Your task to perform on an android device: star an email in the gmail app Image 0: 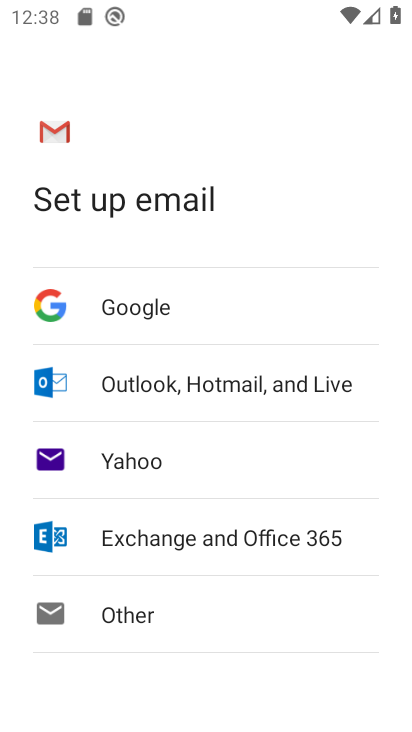
Step 0: press back button
Your task to perform on an android device: star an email in the gmail app Image 1: 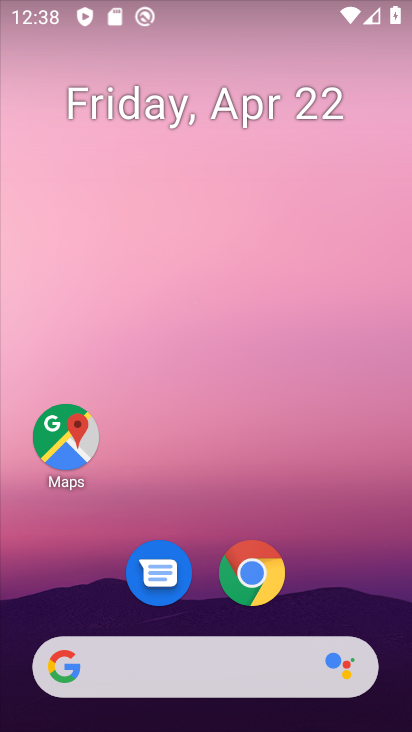
Step 1: drag from (228, 343) to (268, 154)
Your task to perform on an android device: star an email in the gmail app Image 2: 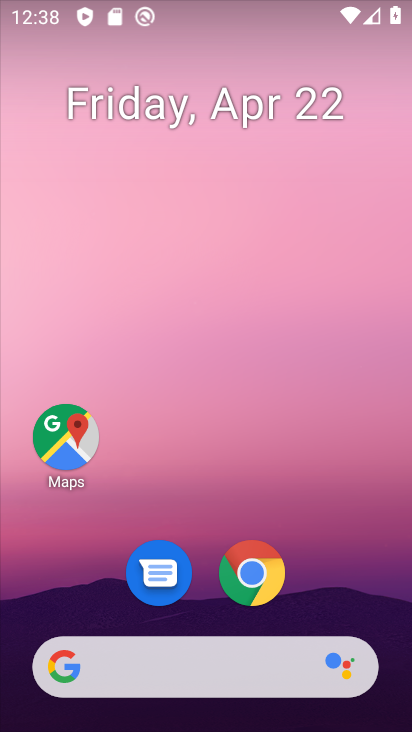
Step 2: drag from (219, 490) to (303, 102)
Your task to perform on an android device: star an email in the gmail app Image 3: 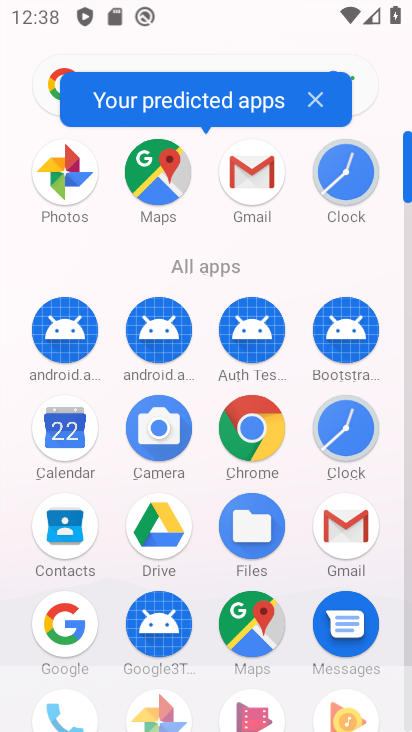
Step 3: click (360, 541)
Your task to perform on an android device: star an email in the gmail app Image 4: 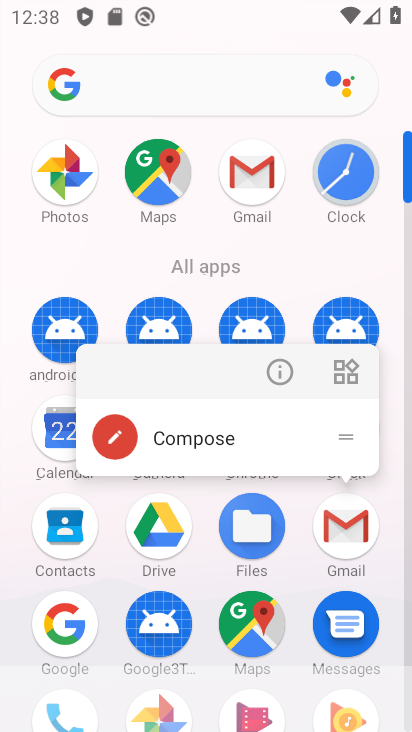
Step 4: click (358, 551)
Your task to perform on an android device: star an email in the gmail app Image 5: 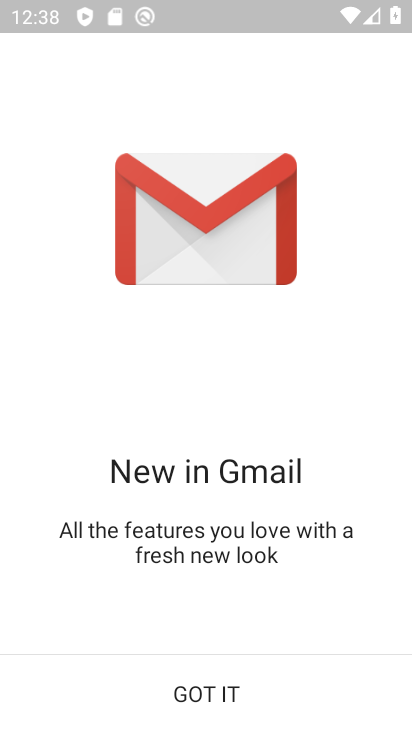
Step 5: click (253, 697)
Your task to perform on an android device: star an email in the gmail app Image 6: 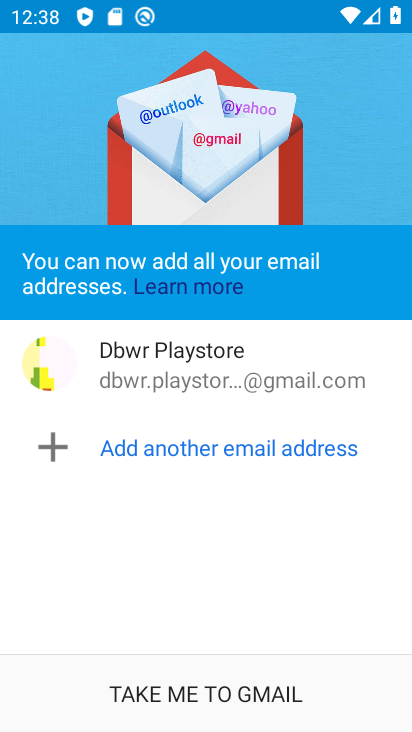
Step 6: click (242, 709)
Your task to perform on an android device: star an email in the gmail app Image 7: 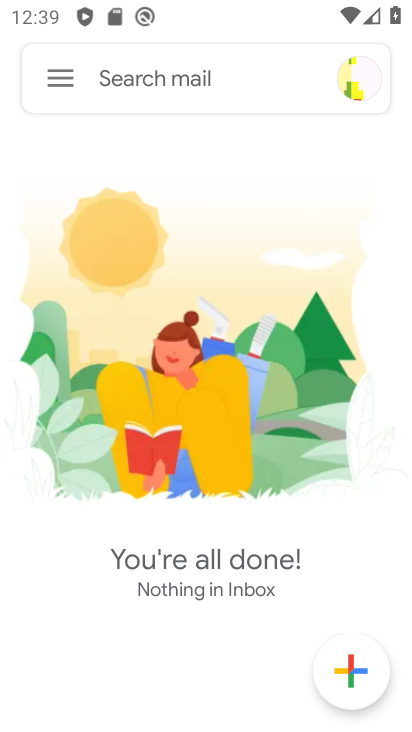
Step 7: click (63, 82)
Your task to perform on an android device: star an email in the gmail app Image 8: 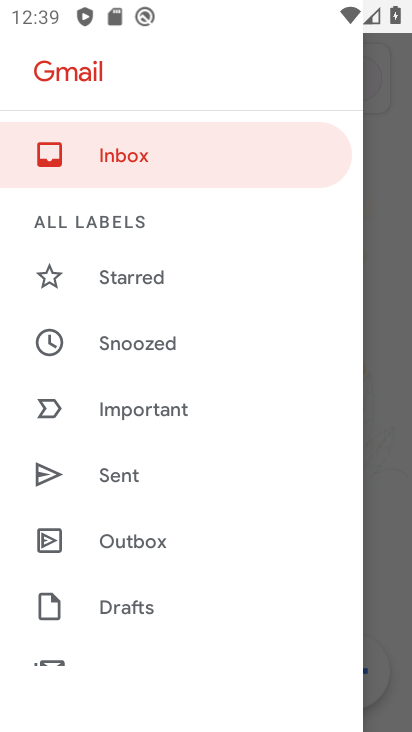
Step 8: drag from (140, 618) to (201, 302)
Your task to perform on an android device: star an email in the gmail app Image 9: 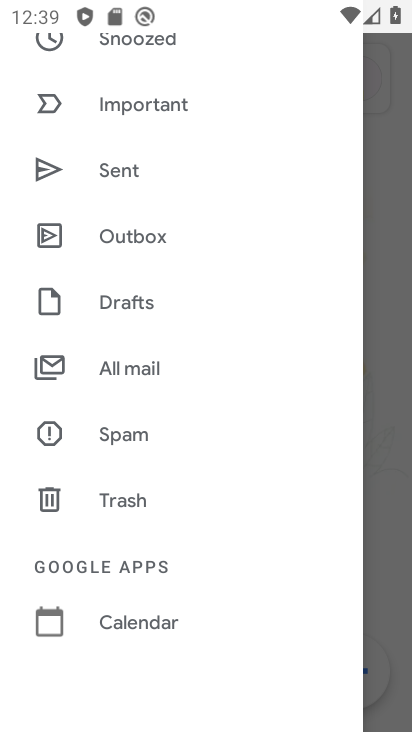
Step 9: click (151, 375)
Your task to perform on an android device: star an email in the gmail app Image 10: 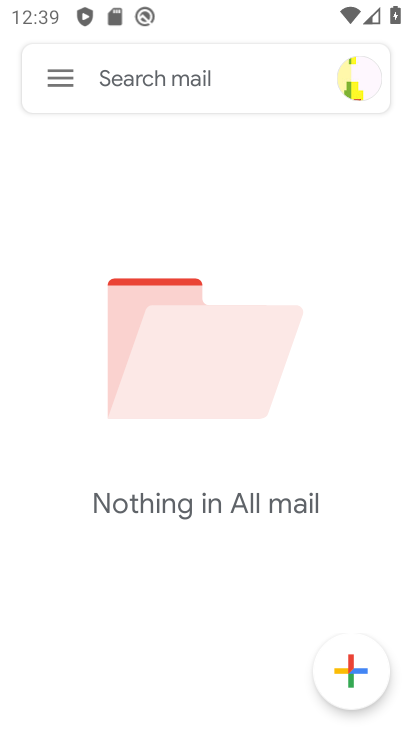
Step 10: task complete